Your task to perform on an android device: turn on notifications settings in the gmail app Image 0: 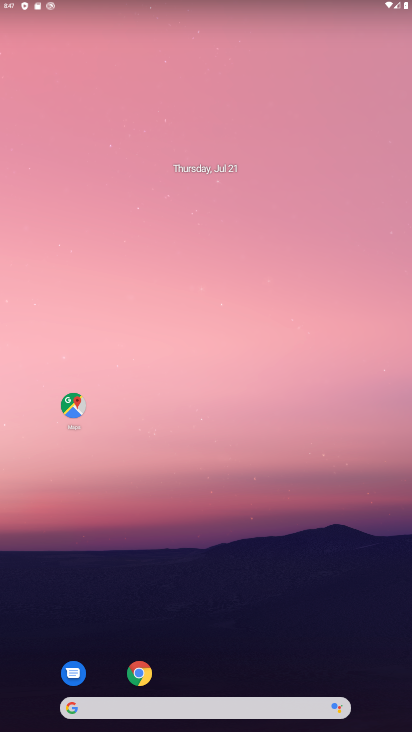
Step 0: drag from (305, 586) to (277, 86)
Your task to perform on an android device: turn on notifications settings in the gmail app Image 1: 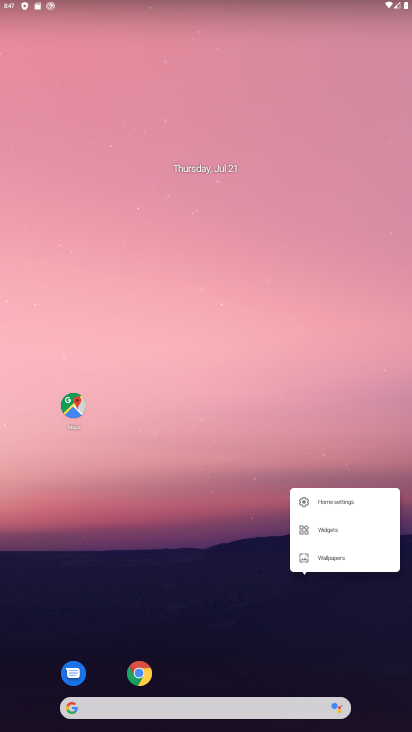
Step 1: click (187, 655)
Your task to perform on an android device: turn on notifications settings in the gmail app Image 2: 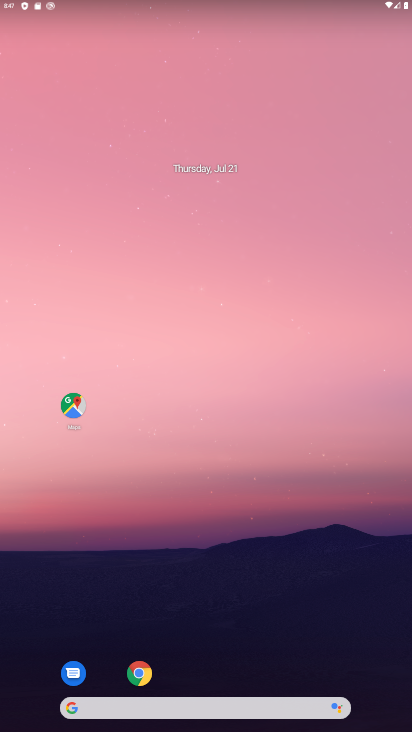
Step 2: drag from (292, 615) to (272, 145)
Your task to perform on an android device: turn on notifications settings in the gmail app Image 3: 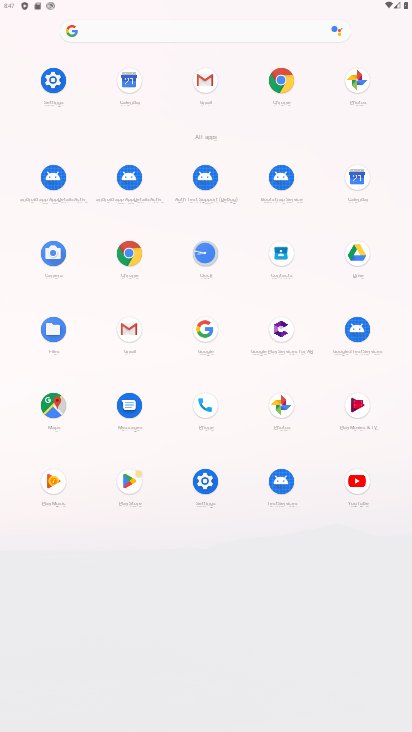
Step 3: click (128, 324)
Your task to perform on an android device: turn on notifications settings in the gmail app Image 4: 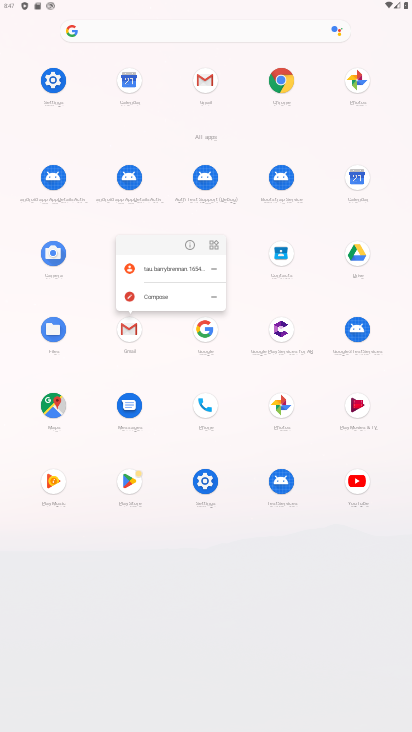
Step 4: click (192, 244)
Your task to perform on an android device: turn on notifications settings in the gmail app Image 5: 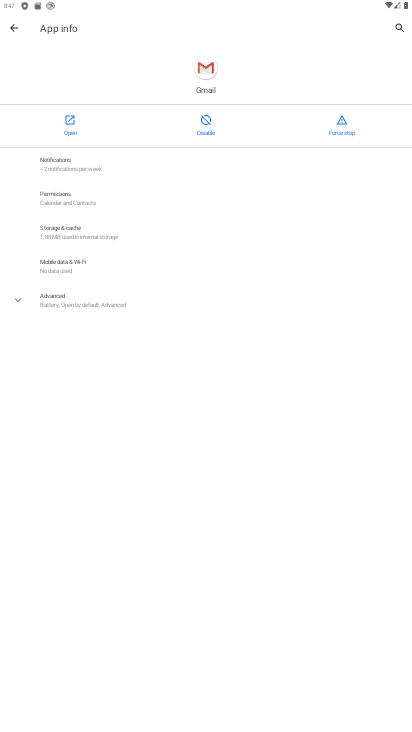
Step 5: click (124, 165)
Your task to perform on an android device: turn on notifications settings in the gmail app Image 6: 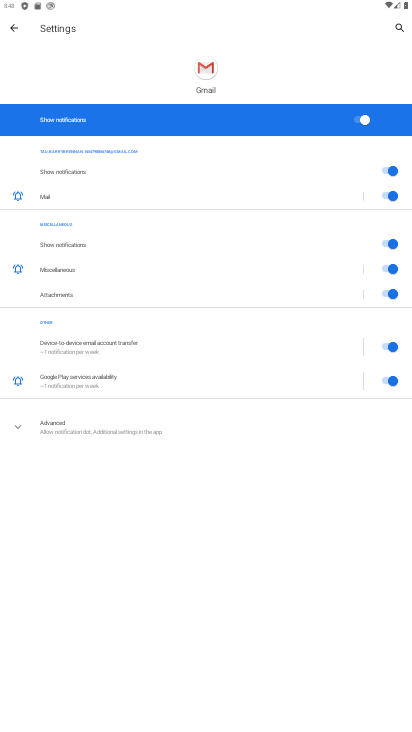
Step 6: task complete